Your task to perform on an android device: see creations saved in the google photos Image 0: 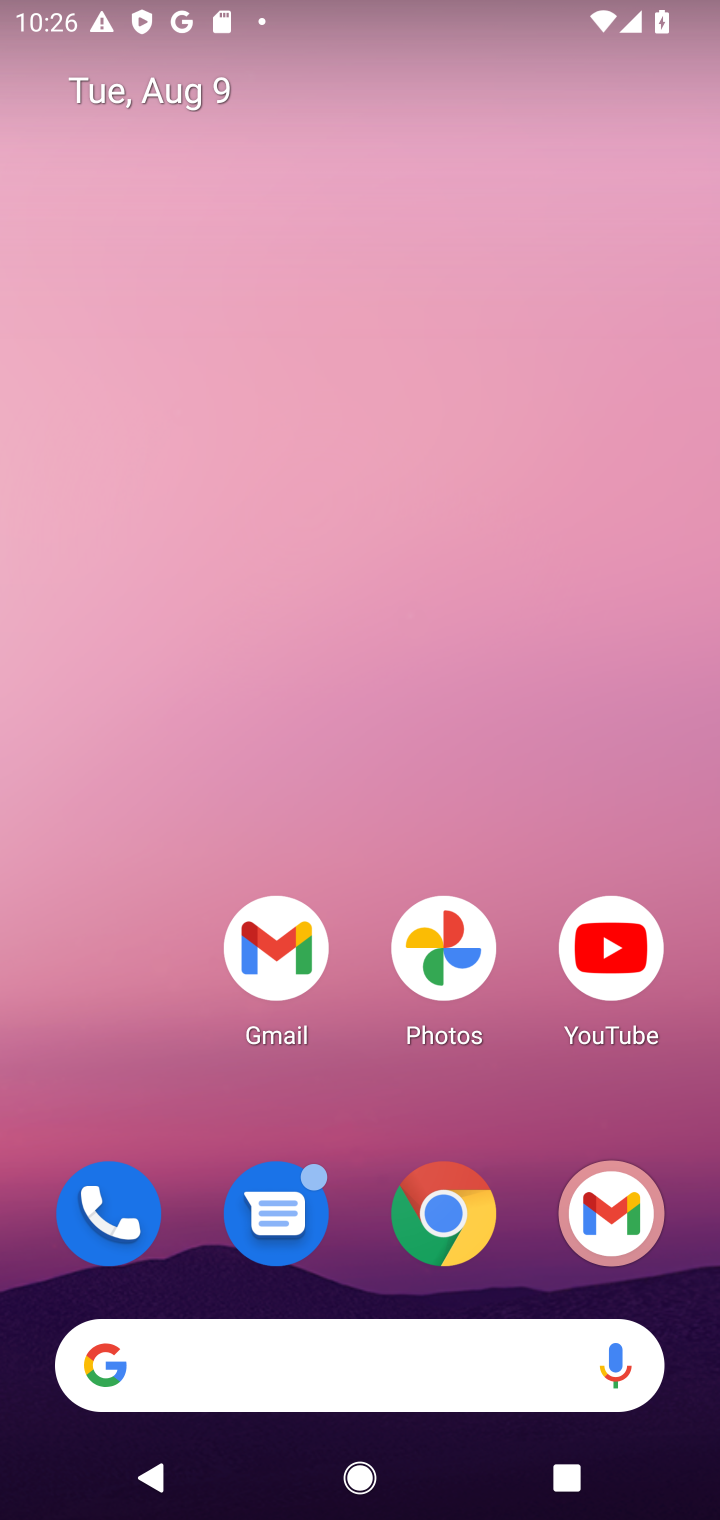
Step 0: click (448, 963)
Your task to perform on an android device: see creations saved in the google photos Image 1: 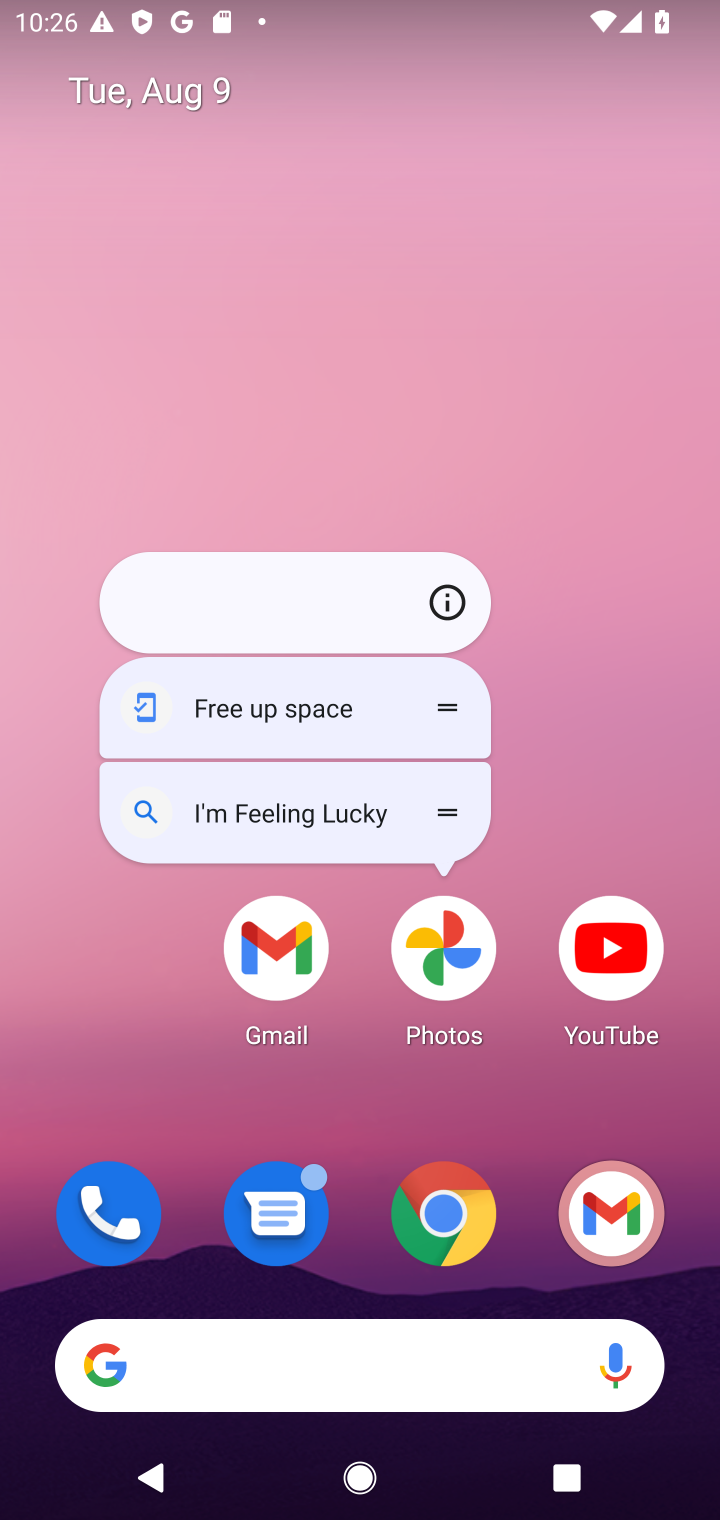
Step 1: click (454, 927)
Your task to perform on an android device: see creations saved in the google photos Image 2: 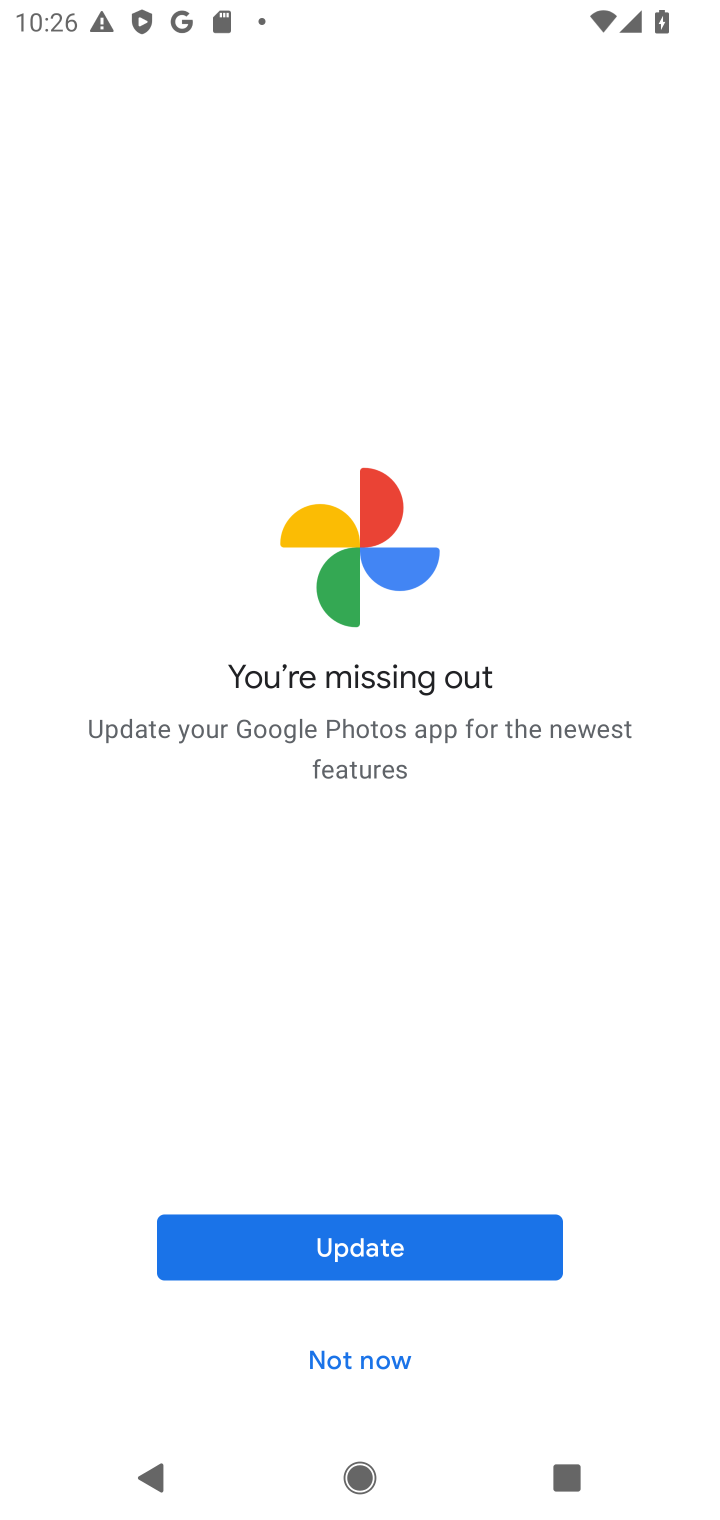
Step 2: click (324, 1341)
Your task to perform on an android device: see creations saved in the google photos Image 3: 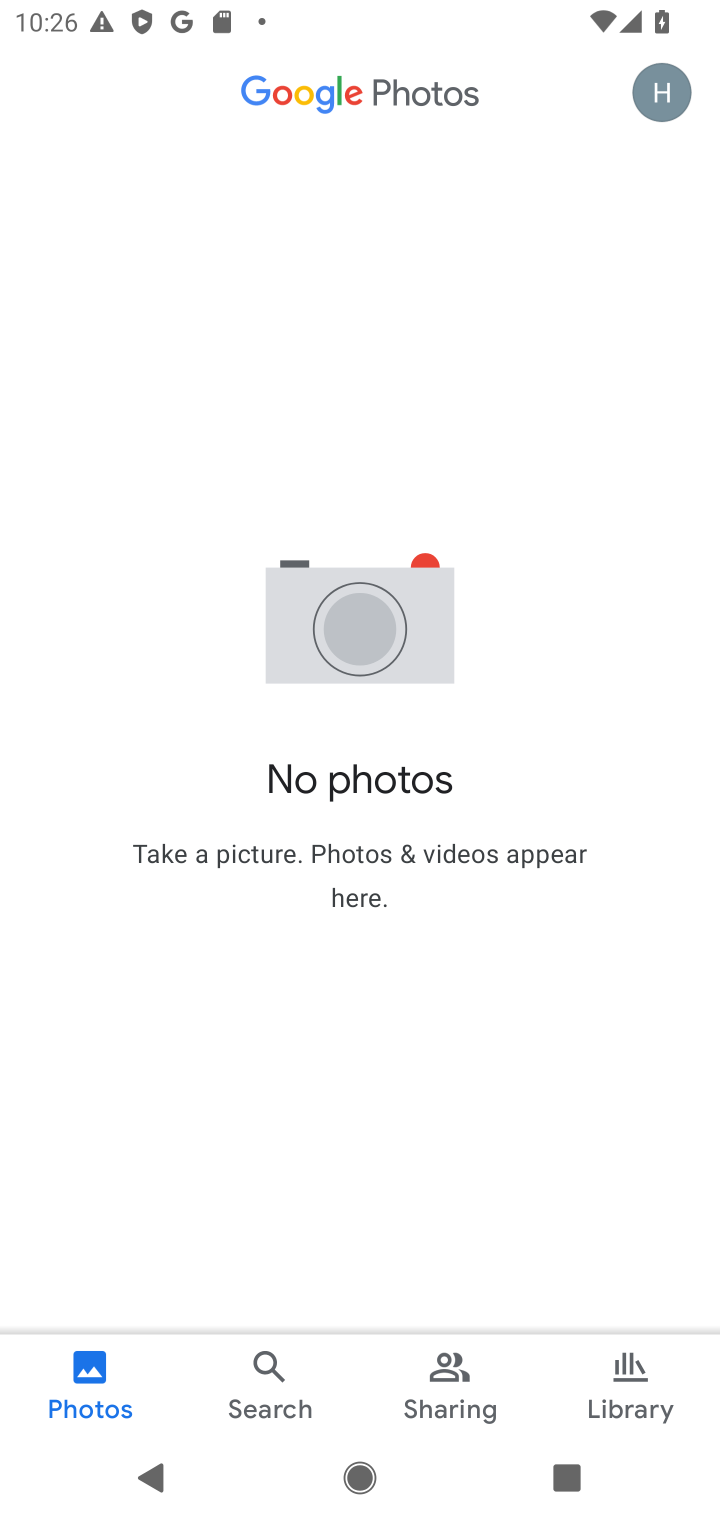
Step 3: drag from (417, 82) to (282, 724)
Your task to perform on an android device: see creations saved in the google photos Image 4: 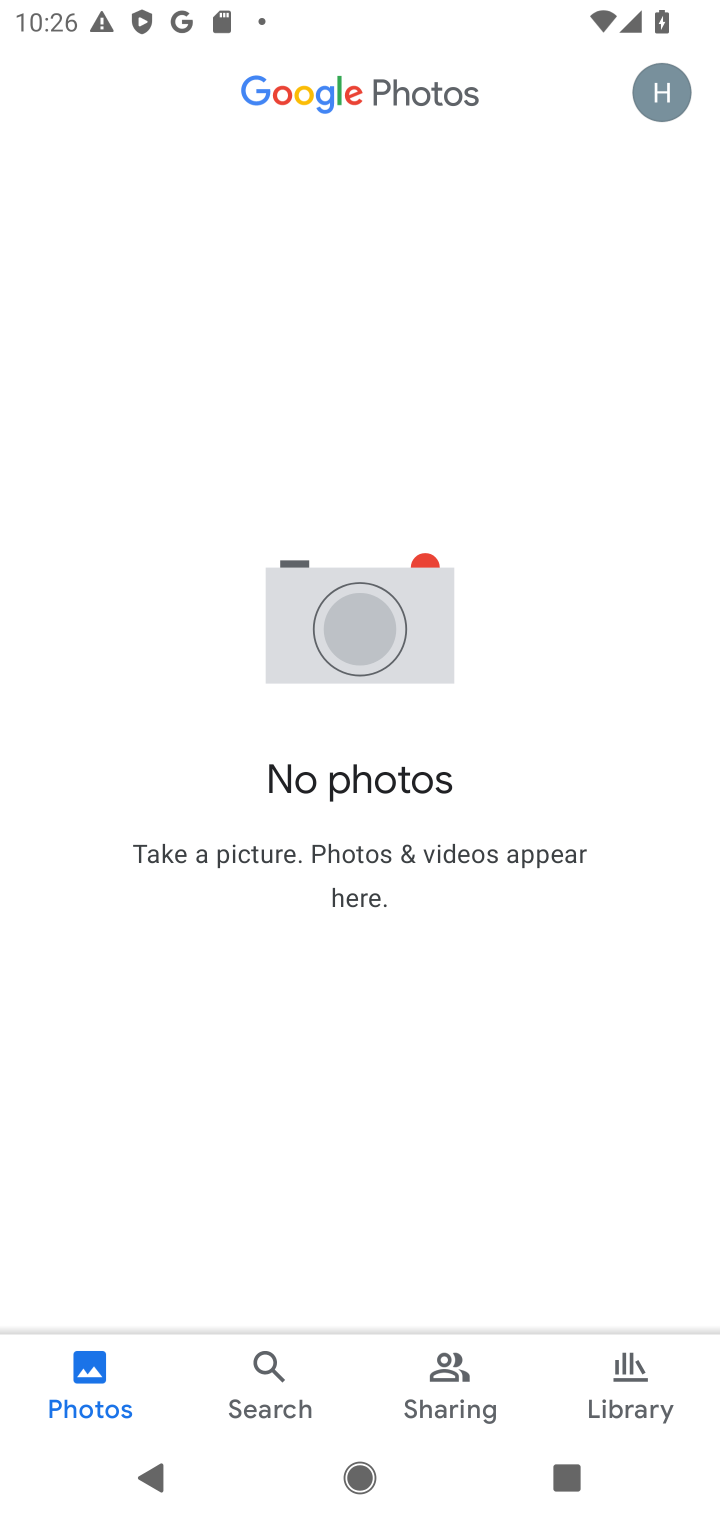
Step 4: click (288, 1392)
Your task to perform on an android device: see creations saved in the google photos Image 5: 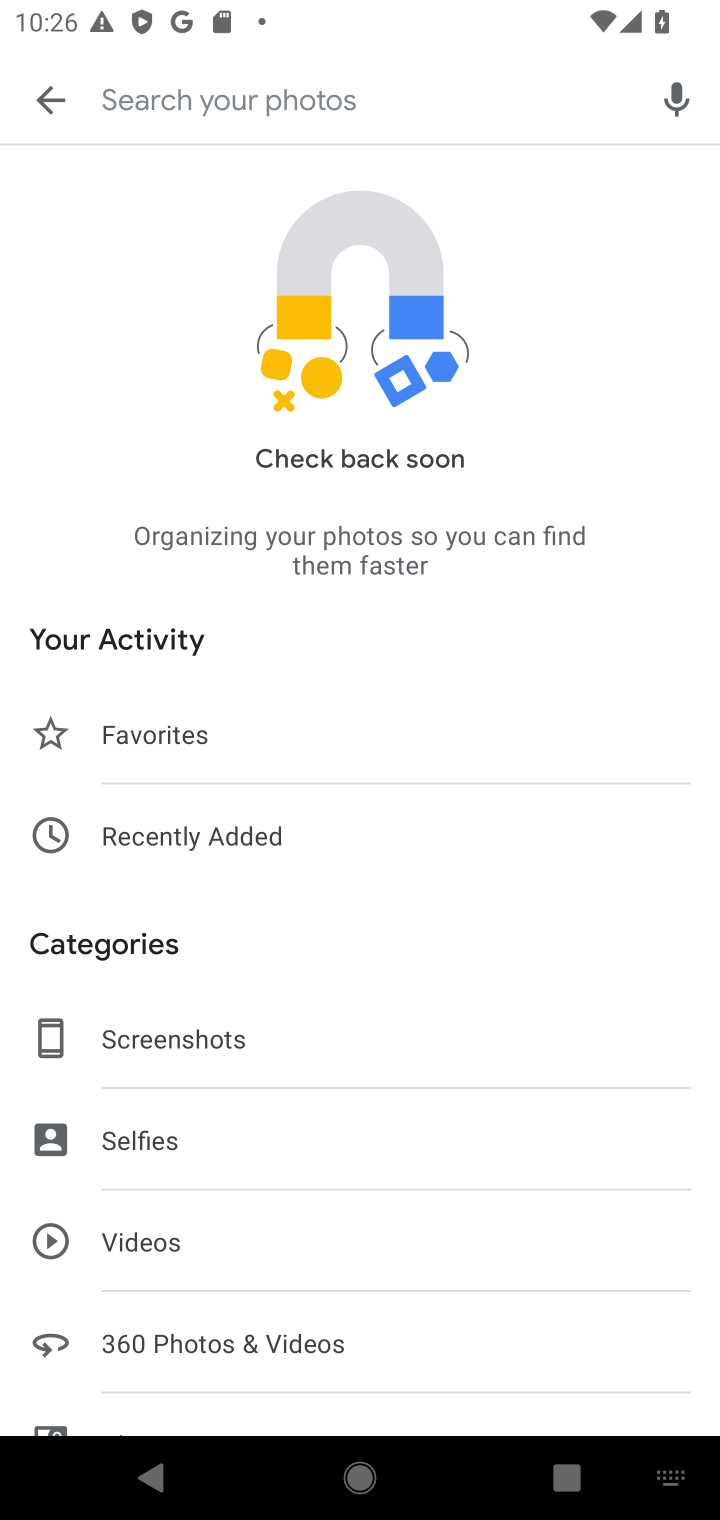
Step 5: drag from (194, 1204) to (157, 705)
Your task to perform on an android device: see creations saved in the google photos Image 6: 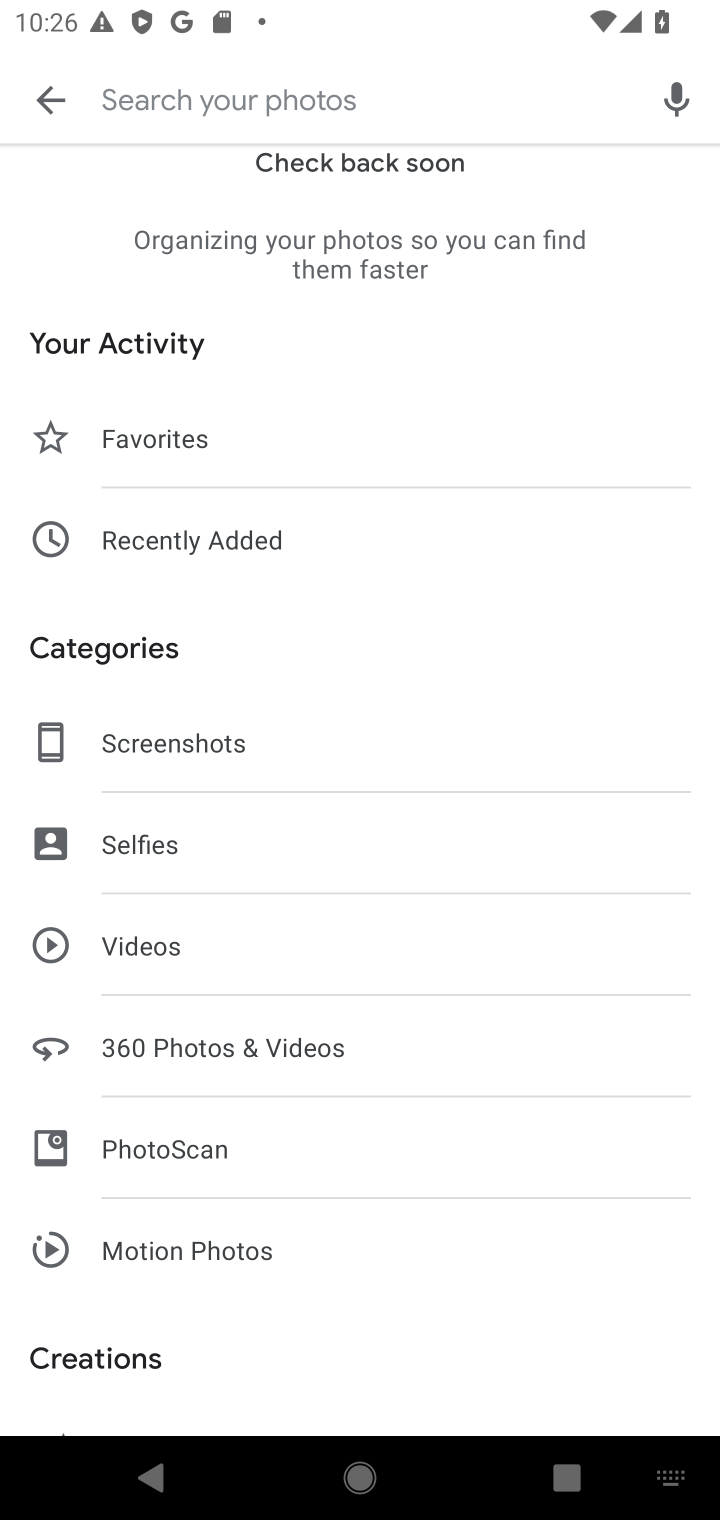
Step 6: click (132, 1360)
Your task to perform on an android device: see creations saved in the google photos Image 7: 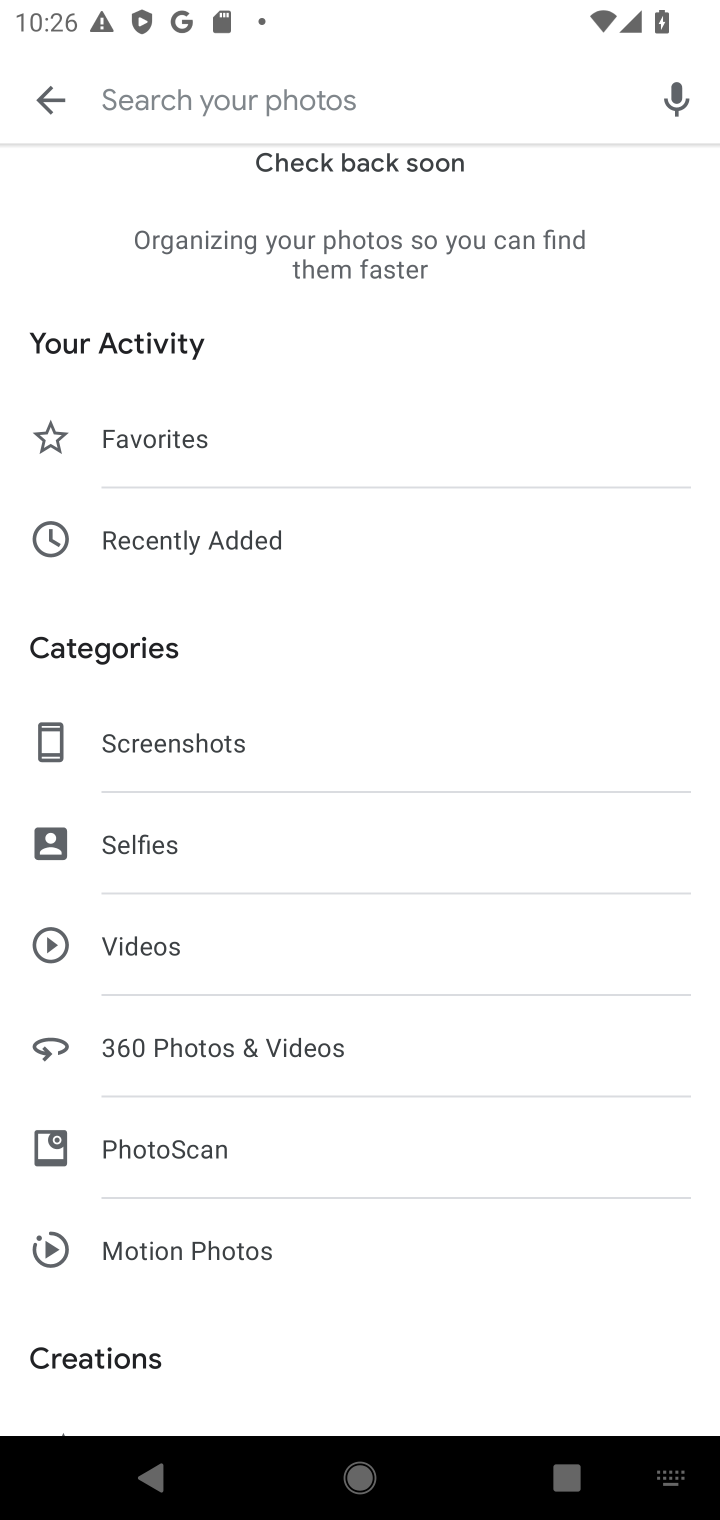
Step 7: drag from (175, 1316) to (101, 272)
Your task to perform on an android device: see creations saved in the google photos Image 8: 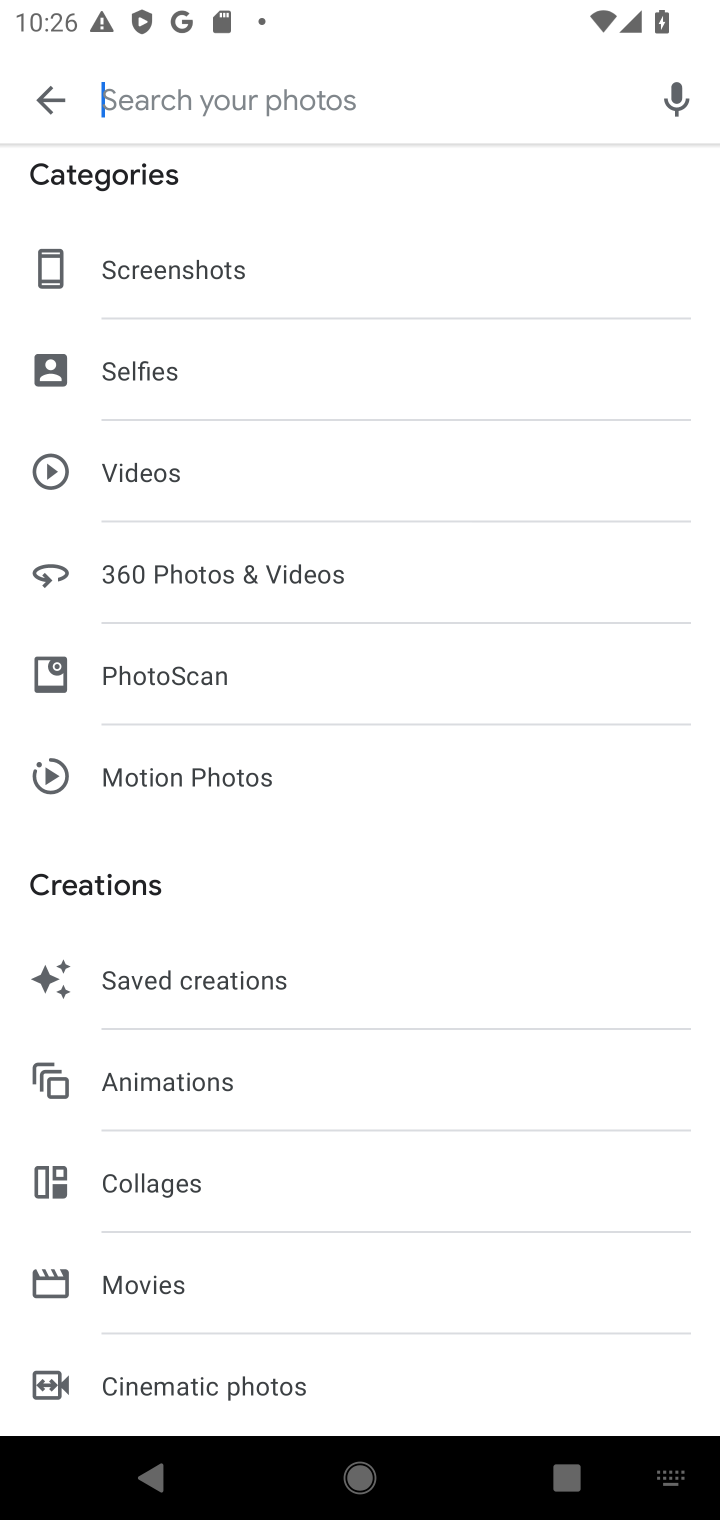
Step 8: click (241, 998)
Your task to perform on an android device: see creations saved in the google photos Image 9: 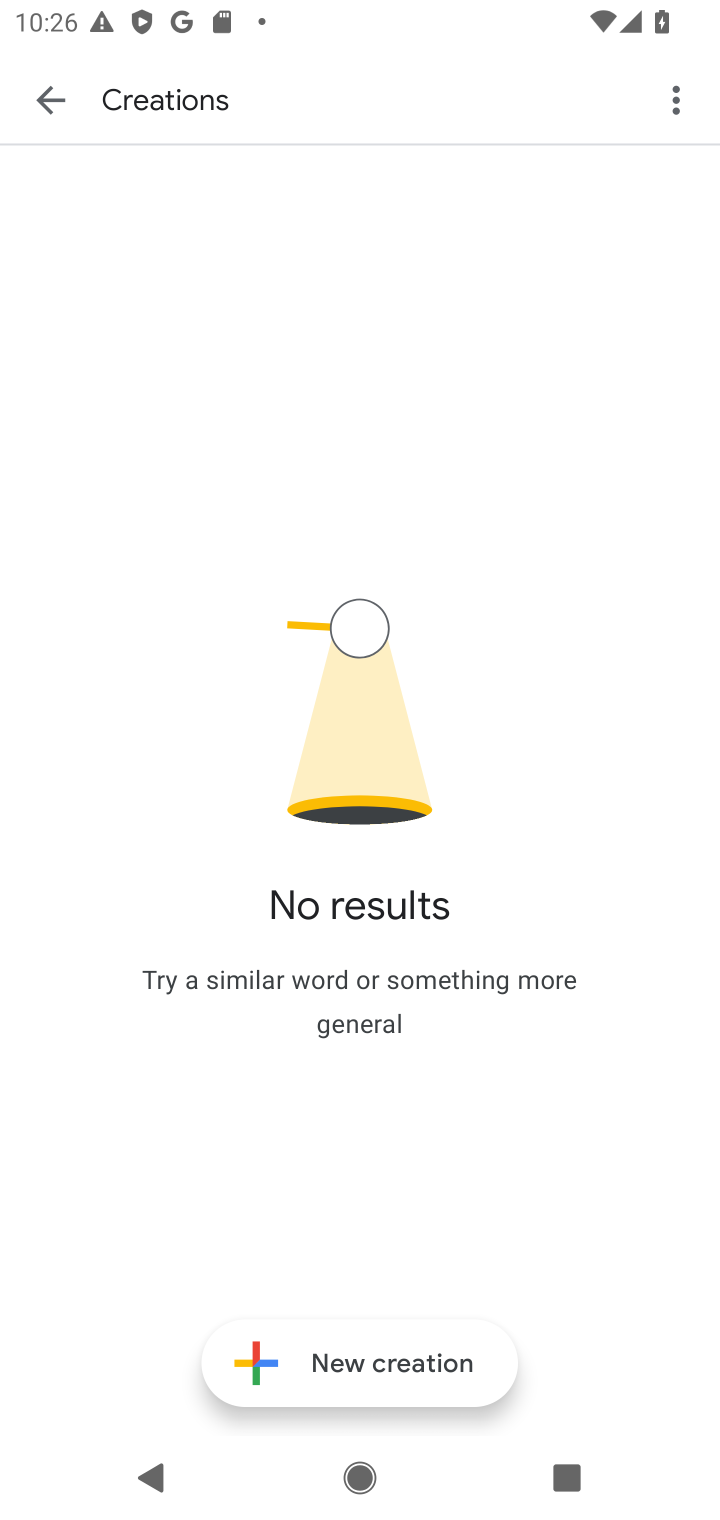
Step 9: task complete